Your task to perform on an android device: Open Google Chrome and open the bookmarks view Image 0: 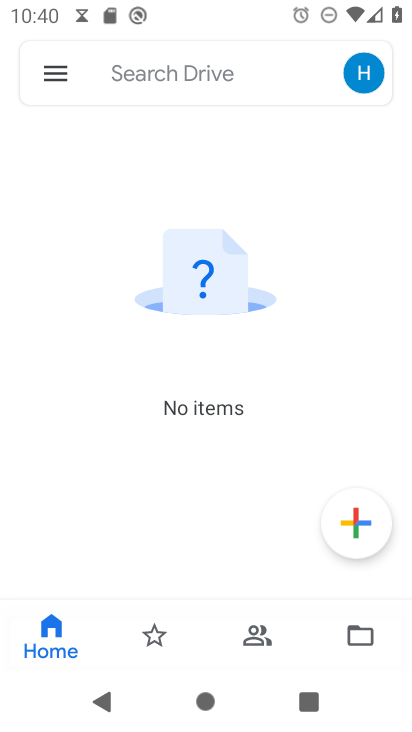
Step 0: press home button
Your task to perform on an android device: Open Google Chrome and open the bookmarks view Image 1: 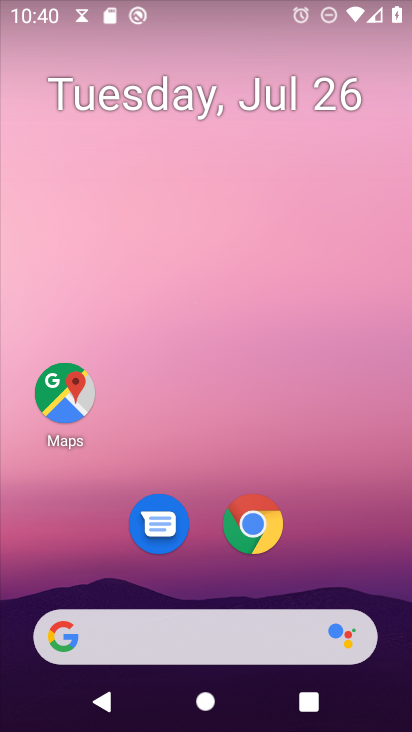
Step 1: click (253, 524)
Your task to perform on an android device: Open Google Chrome and open the bookmarks view Image 2: 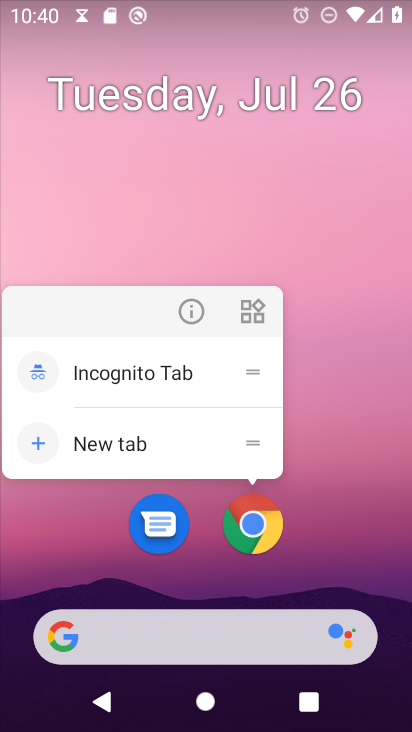
Step 2: click (253, 524)
Your task to perform on an android device: Open Google Chrome and open the bookmarks view Image 3: 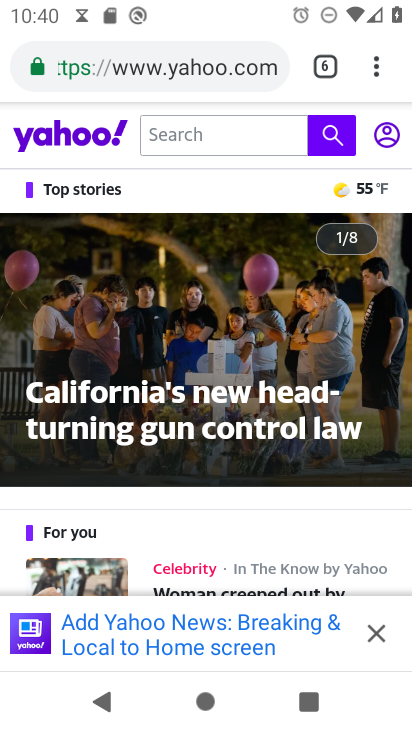
Step 3: task complete